Your task to perform on an android device: change the clock display to show seconds Image 0: 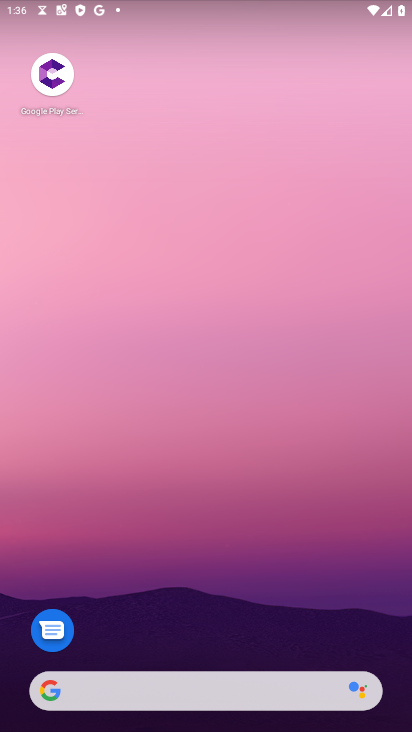
Step 0: drag from (163, 593) to (202, 4)
Your task to perform on an android device: change the clock display to show seconds Image 1: 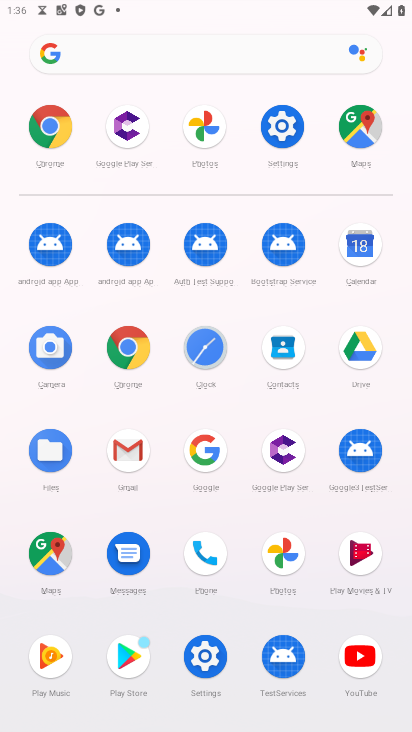
Step 1: click (207, 344)
Your task to perform on an android device: change the clock display to show seconds Image 2: 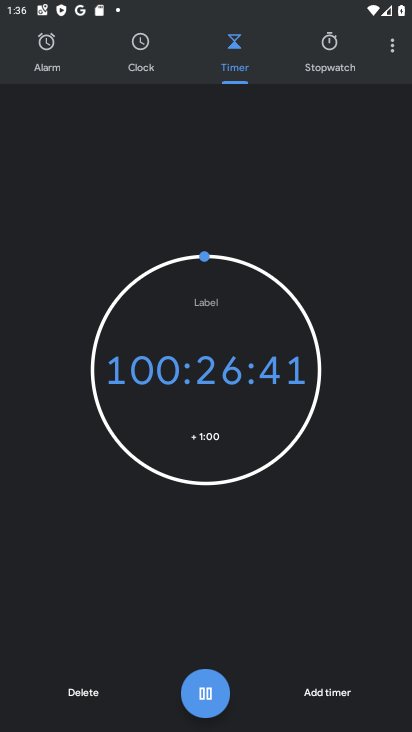
Step 2: click (393, 49)
Your task to perform on an android device: change the clock display to show seconds Image 3: 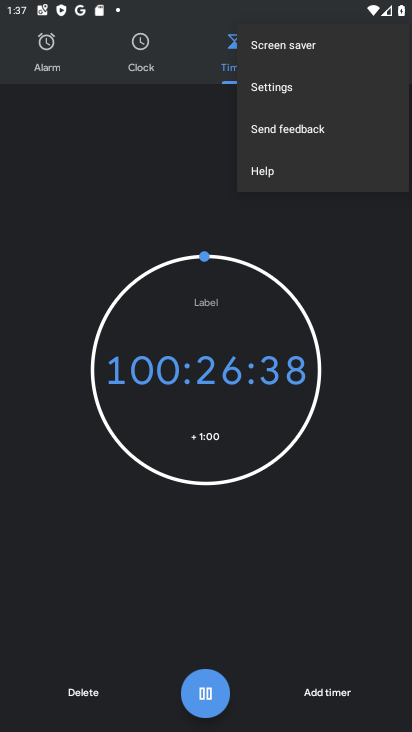
Step 3: click (287, 95)
Your task to perform on an android device: change the clock display to show seconds Image 4: 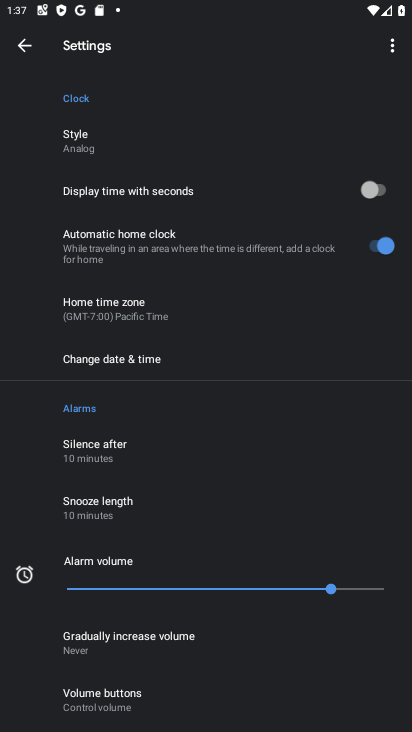
Step 4: click (377, 186)
Your task to perform on an android device: change the clock display to show seconds Image 5: 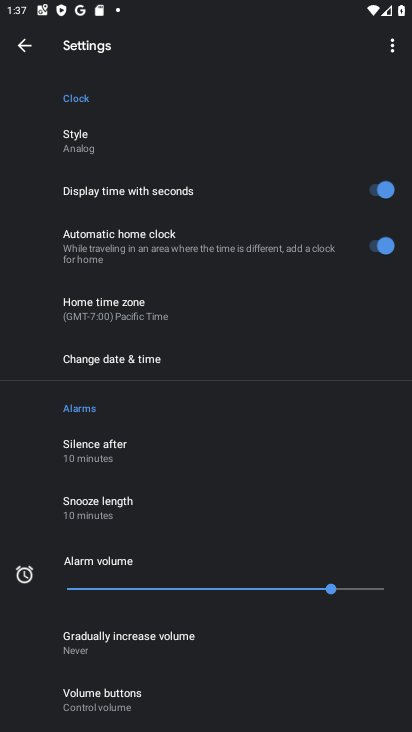
Step 5: task complete